Your task to perform on an android device: Open Maps and search for coffee Image 0: 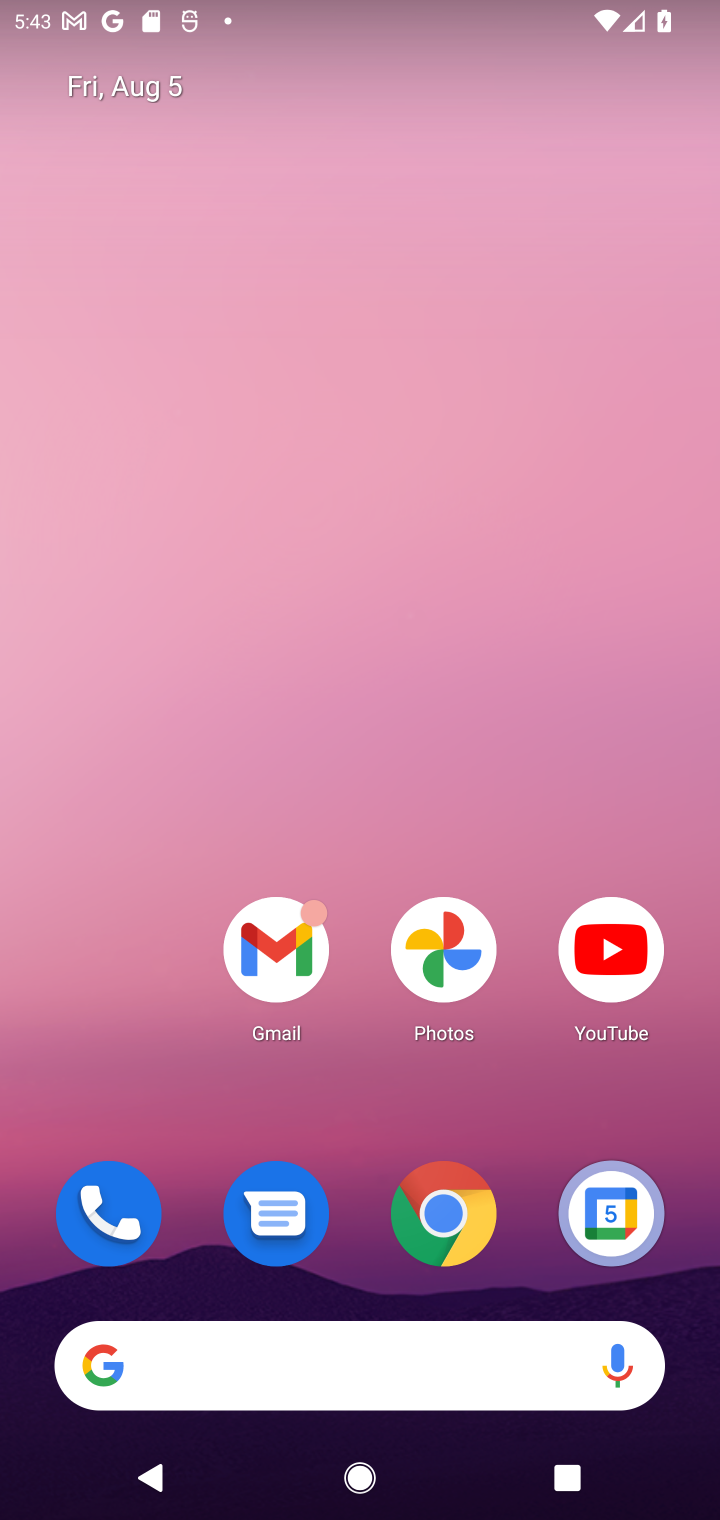
Step 0: drag from (371, 1291) to (484, 93)
Your task to perform on an android device: Open Maps and search for coffee Image 1: 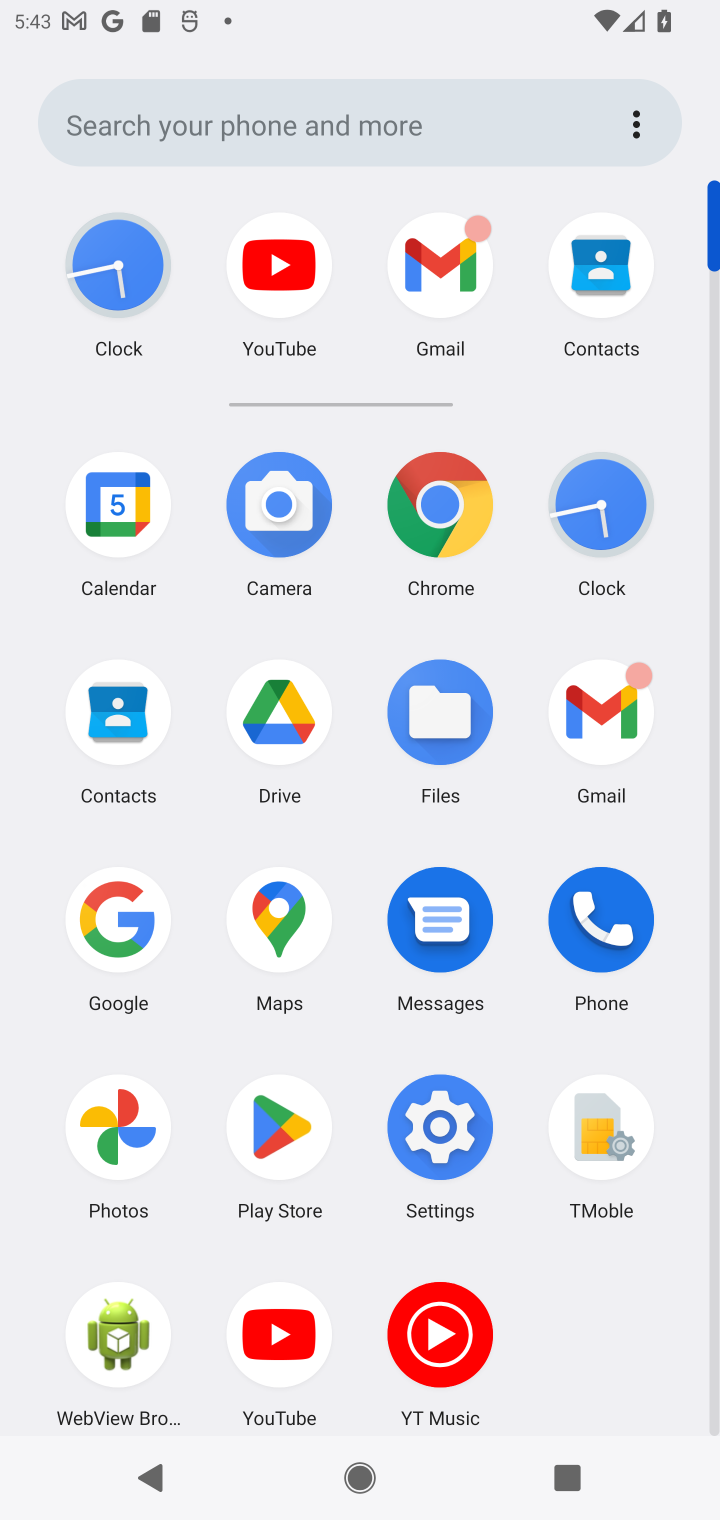
Step 1: click (287, 901)
Your task to perform on an android device: Open Maps and search for coffee Image 2: 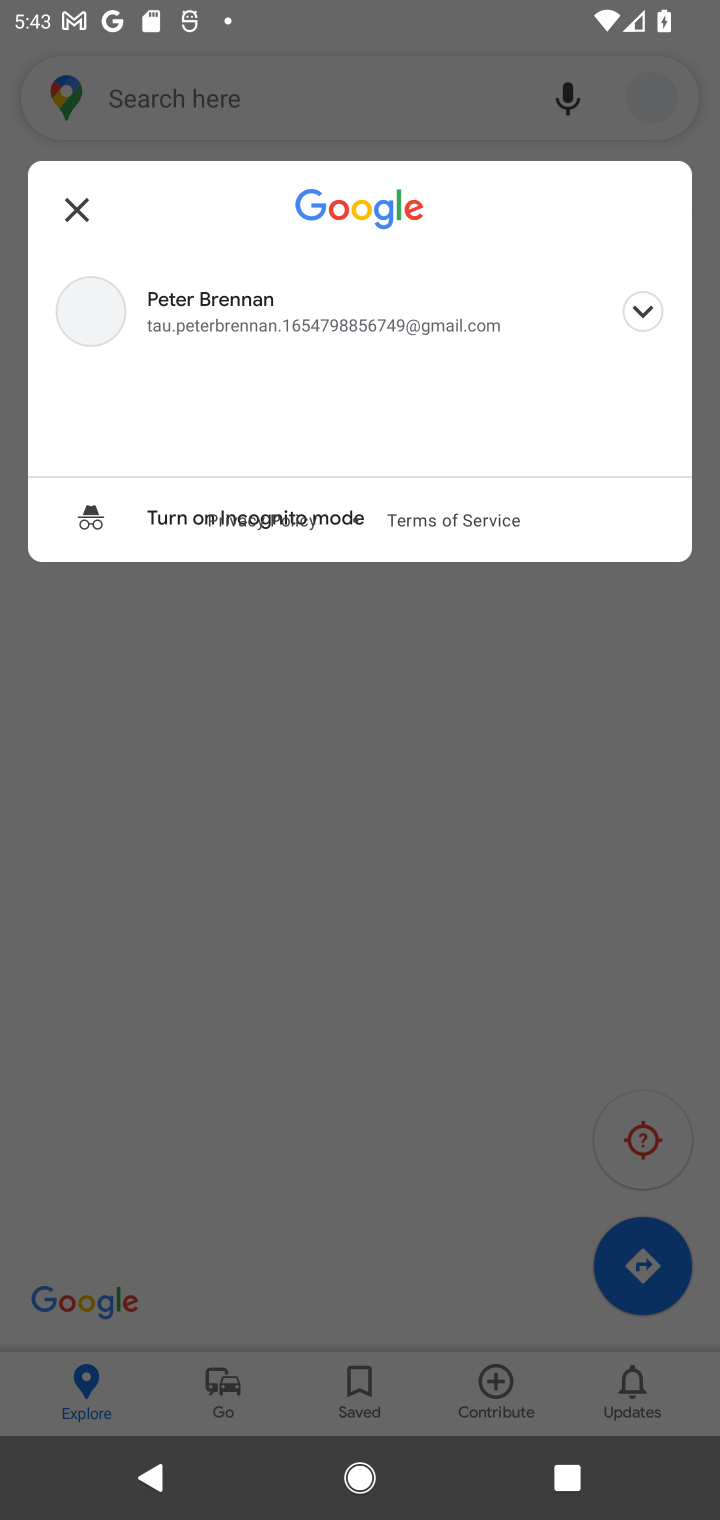
Step 2: click (93, 215)
Your task to perform on an android device: Open Maps and search for coffee Image 3: 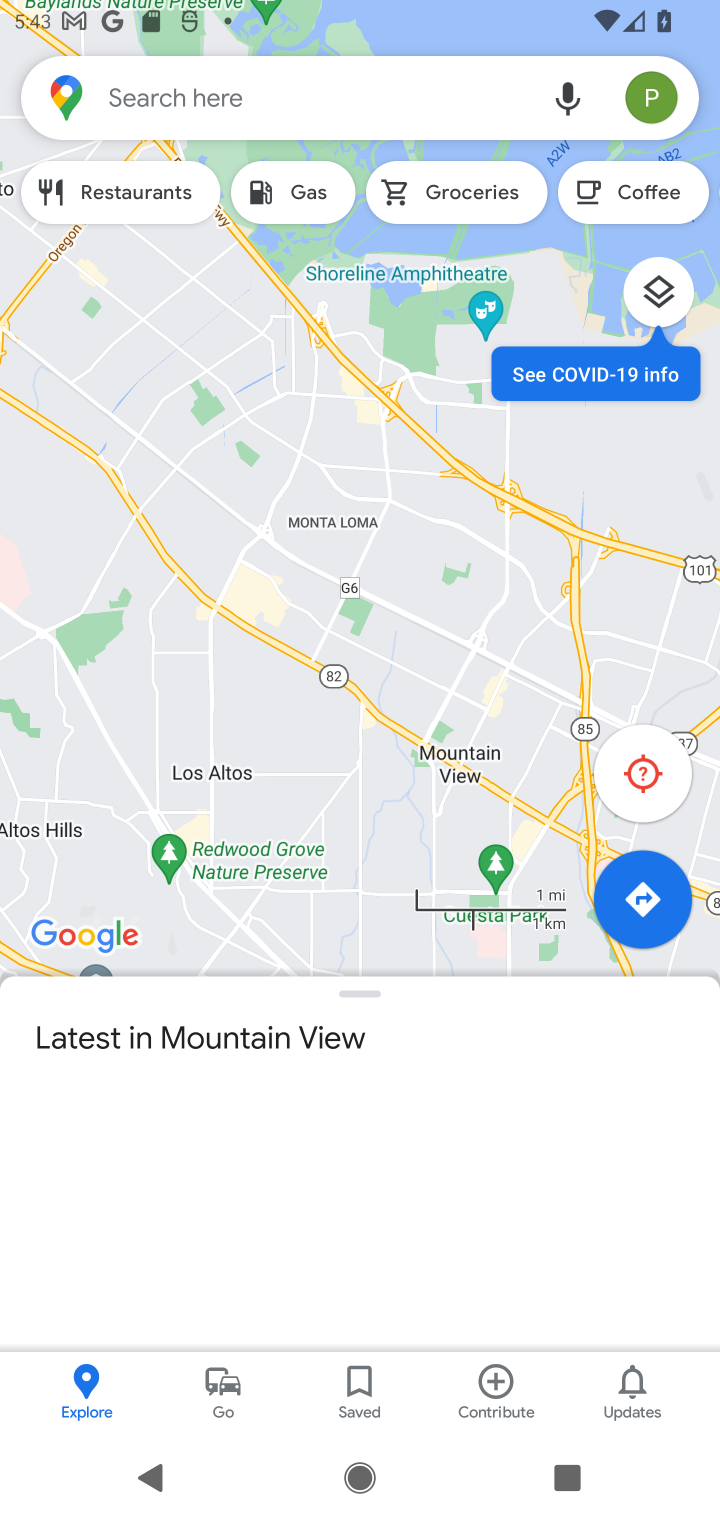
Step 3: click (265, 111)
Your task to perform on an android device: Open Maps and search for coffee Image 4: 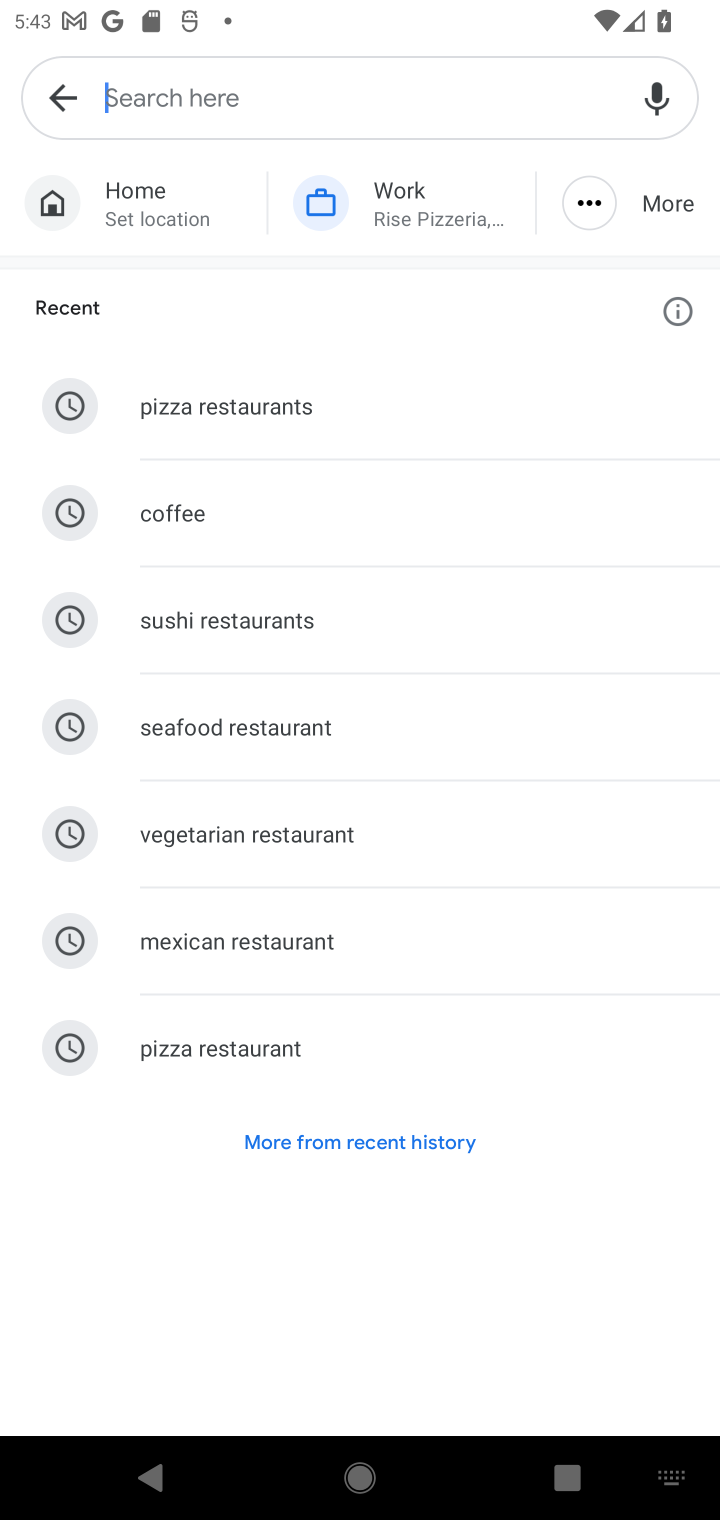
Step 4: click (363, 525)
Your task to perform on an android device: Open Maps and search for coffee Image 5: 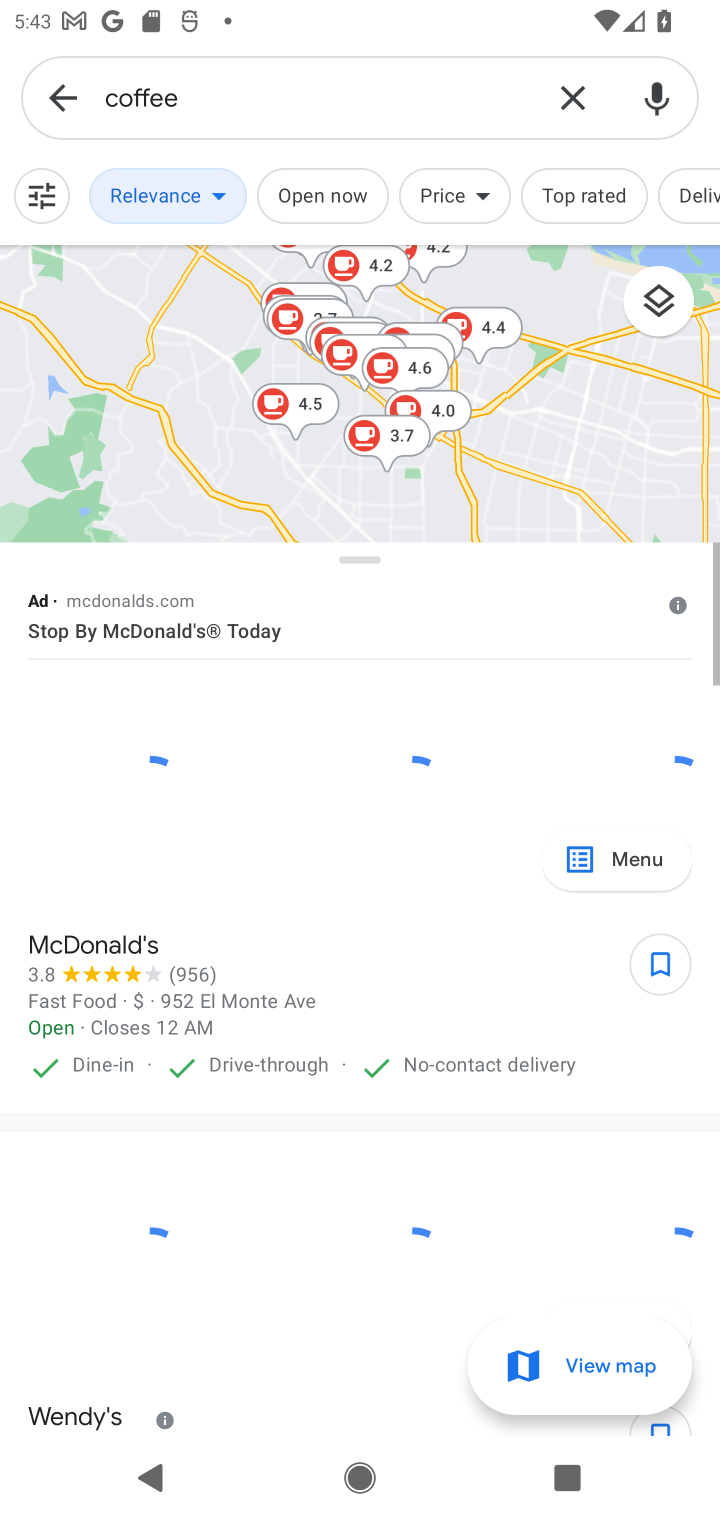
Step 5: task complete